Your task to perform on an android device: Open Yahoo.com Image 0: 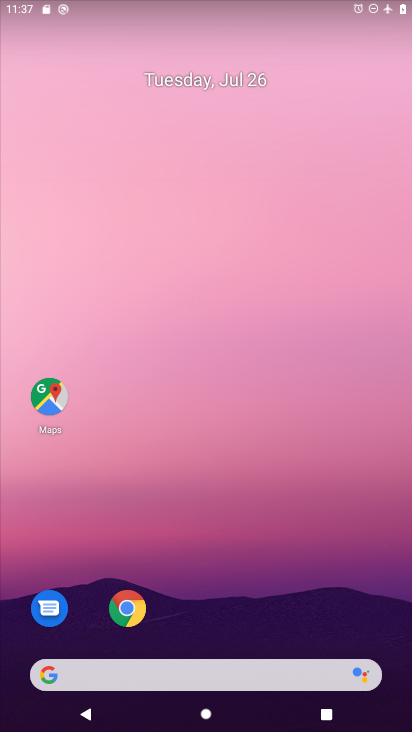
Step 0: drag from (295, 546) to (341, 5)
Your task to perform on an android device: Open Yahoo.com Image 1: 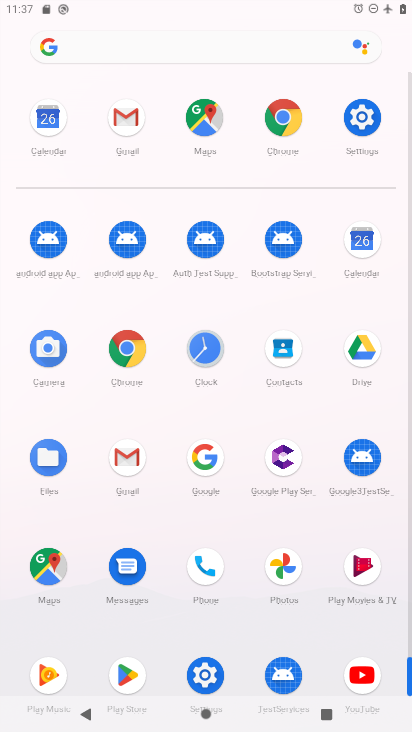
Step 1: click (282, 109)
Your task to perform on an android device: Open Yahoo.com Image 2: 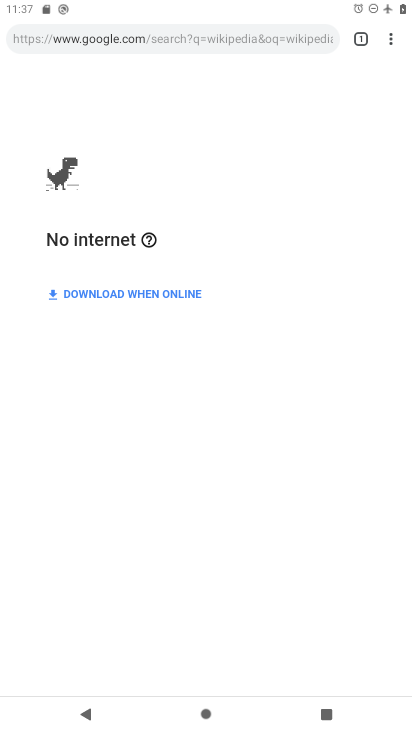
Step 2: click (198, 29)
Your task to perform on an android device: Open Yahoo.com Image 3: 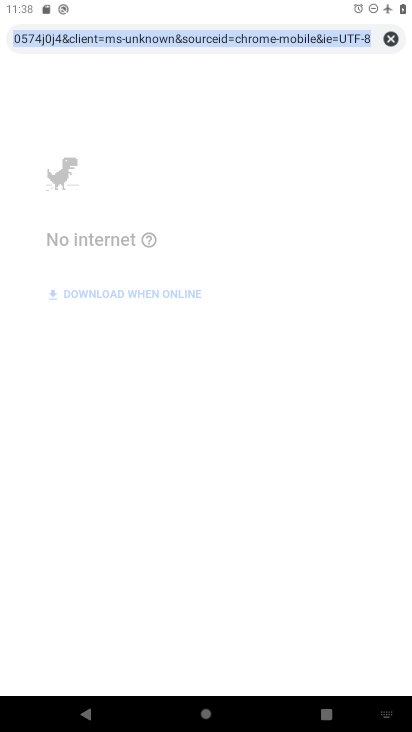
Step 3: type "yahoo.com"
Your task to perform on an android device: Open Yahoo.com Image 4: 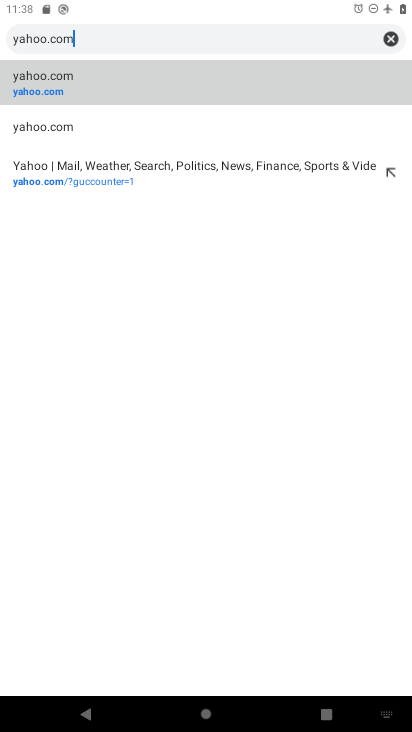
Step 4: click (57, 81)
Your task to perform on an android device: Open Yahoo.com Image 5: 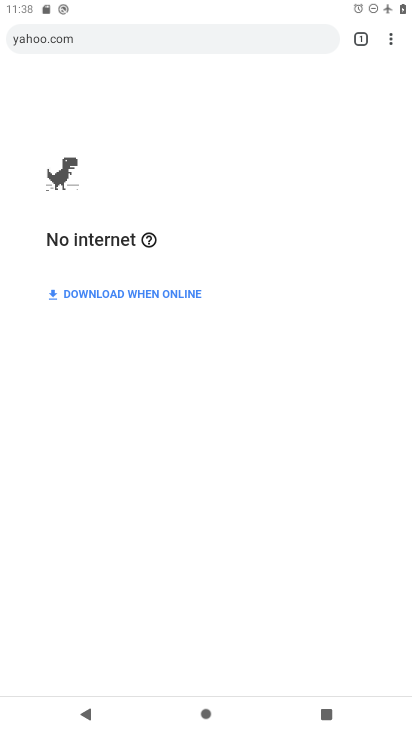
Step 5: task complete